Your task to perform on an android device: Go to calendar. Show me events next week Image 0: 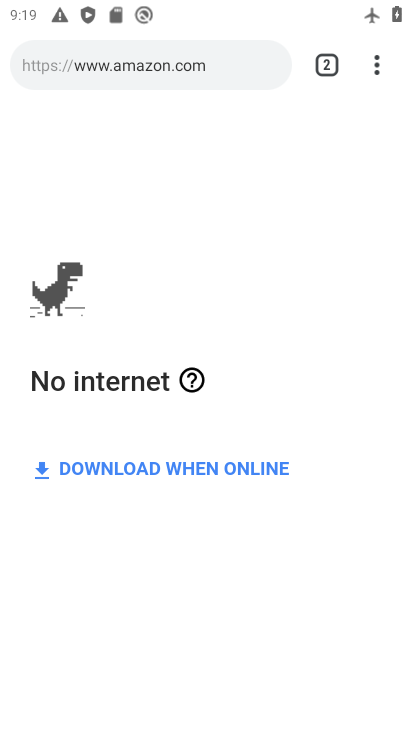
Step 0: press home button
Your task to perform on an android device: Go to calendar. Show me events next week Image 1: 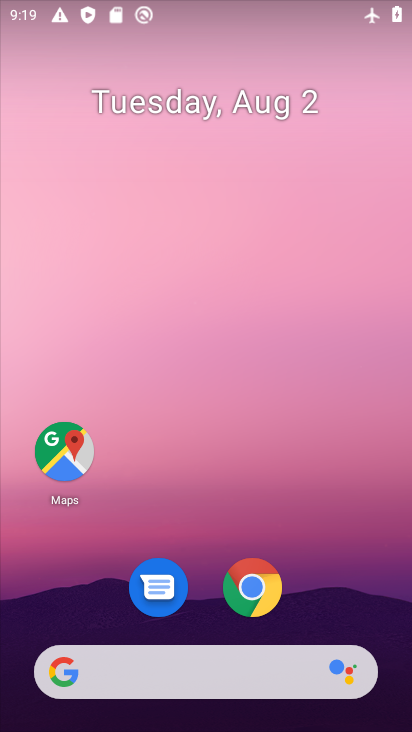
Step 1: drag from (397, 613) to (355, 146)
Your task to perform on an android device: Go to calendar. Show me events next week Image 2: 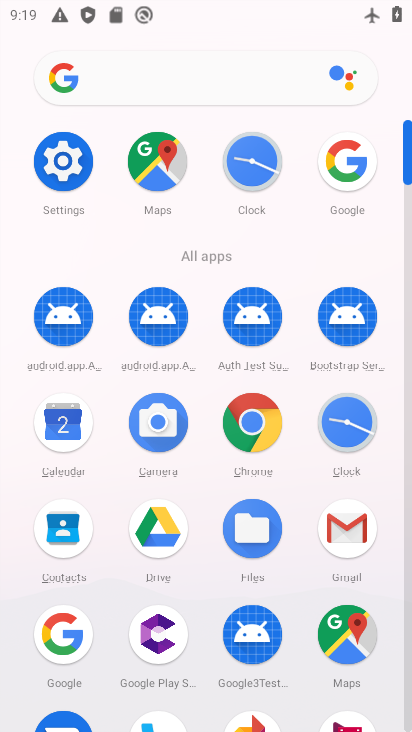
Step 2: click (66, 431)
Your task to perform on an android device: Go to calendar. Show me events next week Image 3: 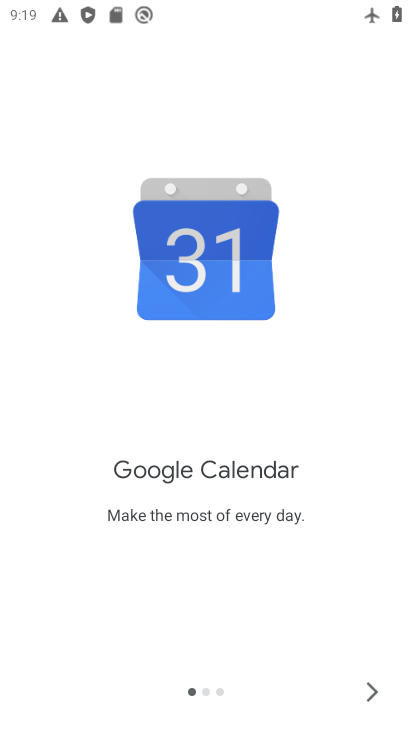
Step 3: click (369, 697)
Your task to perform on an android device: Go to calendar. Show me events next week Image 4: 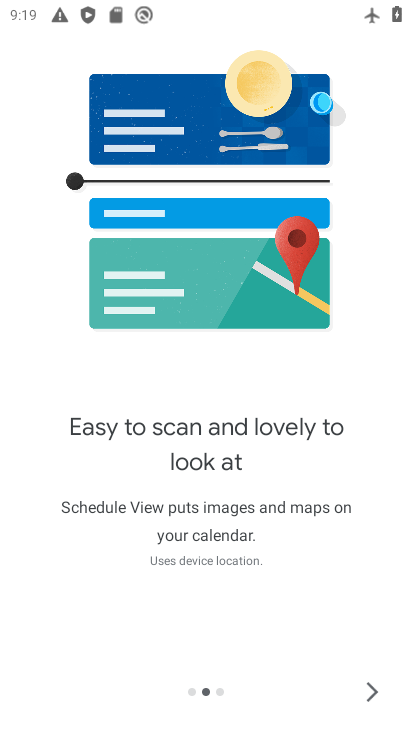
Step 4: click (369, 697)
Your task to perform on an android device: Go to calendar. Show me events next week Image 5: 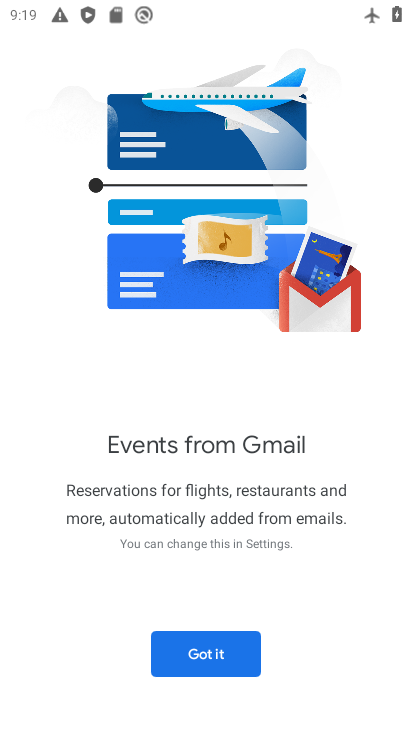
Step 5: click (245, 658)
Your task to perform on an android device: Go to calendar. Show me events next week Image 6: 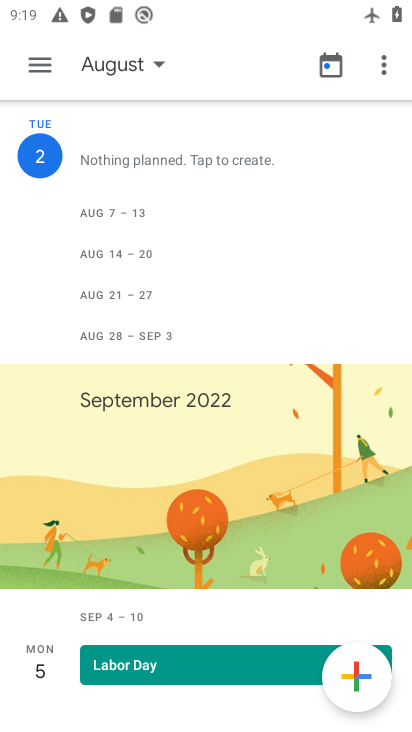
Step 6: click (52, 72)
Your task to perform on an android device: Go to calendar. Show me events next week Image 7: 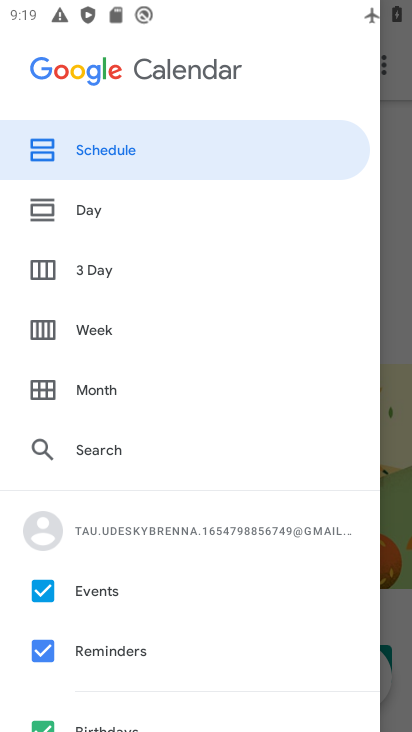
Step 7: drag from (191, 681) to (137, 283)
Your task to perform on an android device: Go to calendar. Show me events next week Image 8: 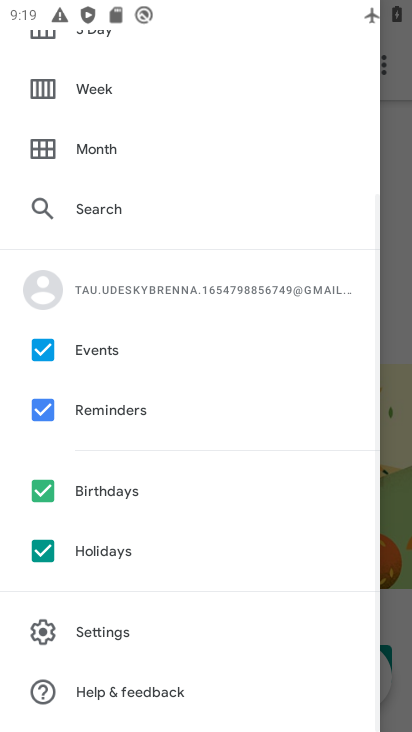
Step 8: click (40, 556)
Your task to perform on an android device: Go to calendar. Show me events next week Image 9: 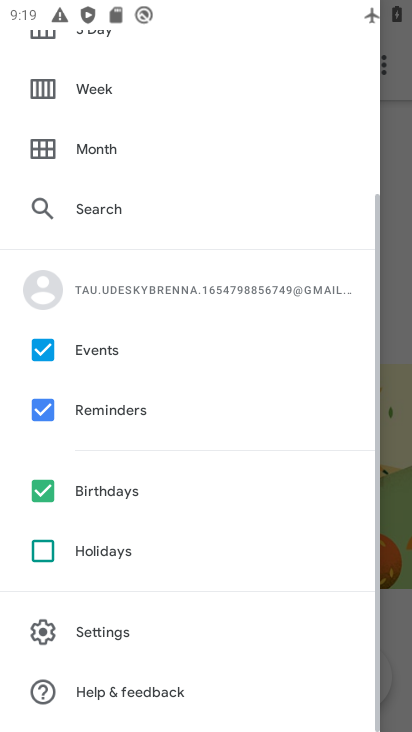
Step 9: click (36, 491)
Your task to perform on an android device: Go to calendar. Show me events next week Image 10: 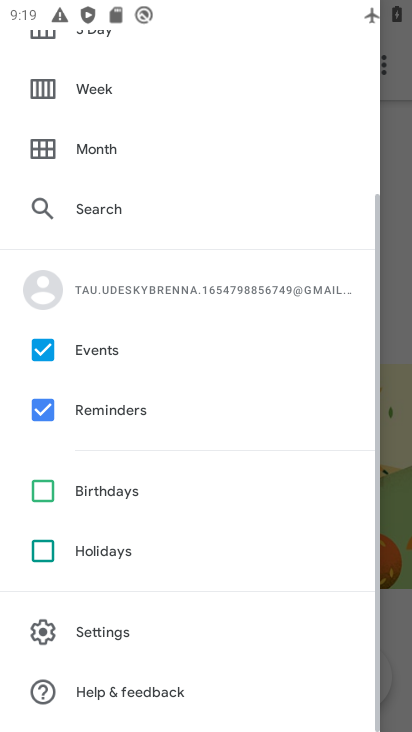
Step 10: click (36, 411)
Your task to perform on an android device: Go to calendar. Show me events next week Image 11: 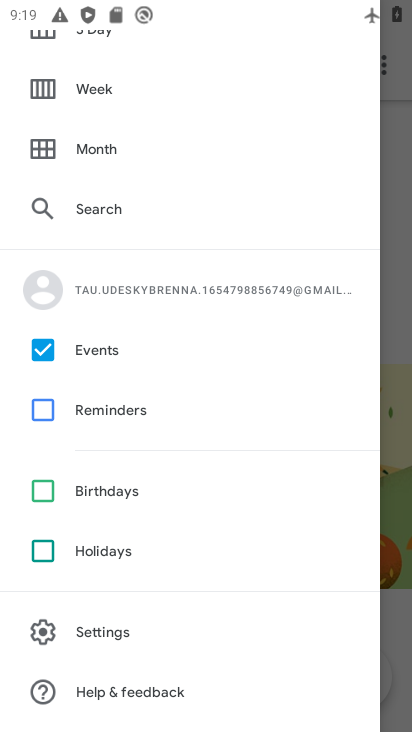
Step 11: click (71, 99)
Your task to perform on an android device: Go to calendar. Show me events next week Image 12: 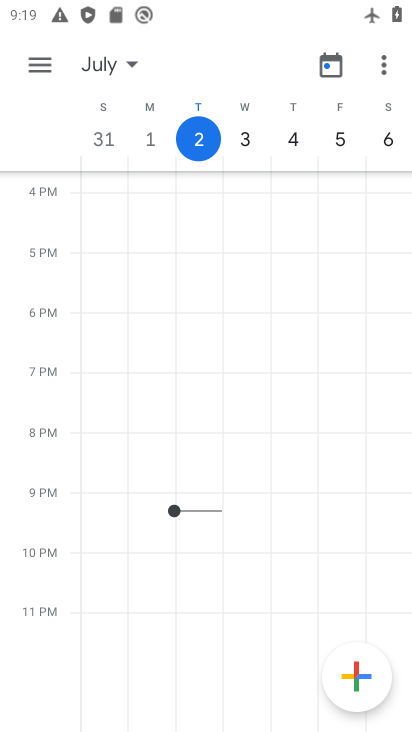
Step 12: click (136, 75)
Your task to perform on an android device: Go to calendar. Show me events next week Image 13: 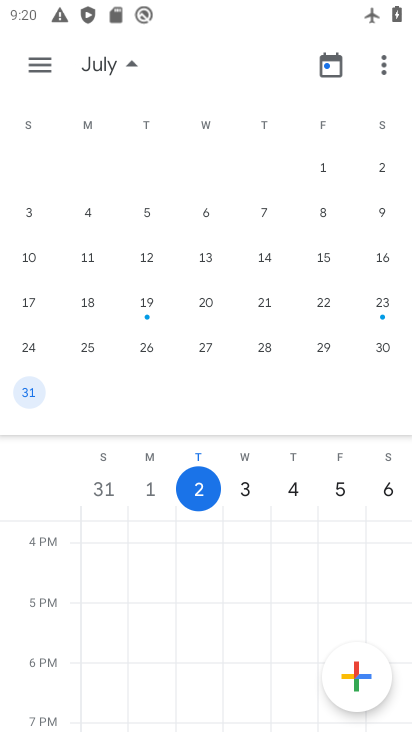
Step 13: drag from (369, 278) to (18, 274)
Your task to perform on an android device: Go to calendar. Show me events next week Image 14: 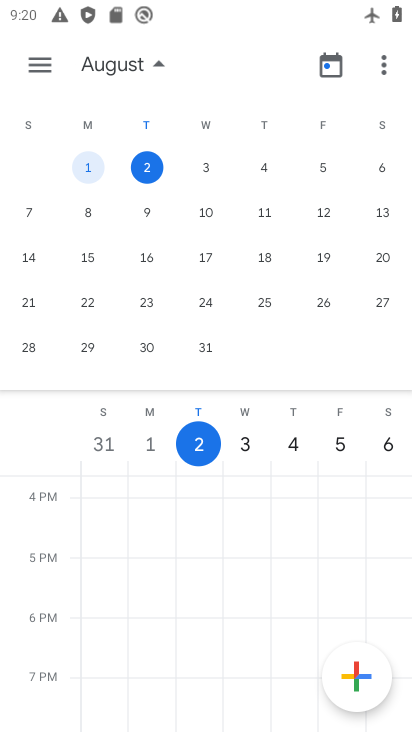
Step 14: click (205, 224)
Your task to perform on an android device: Go to calendar. Show me events next week Image 15: 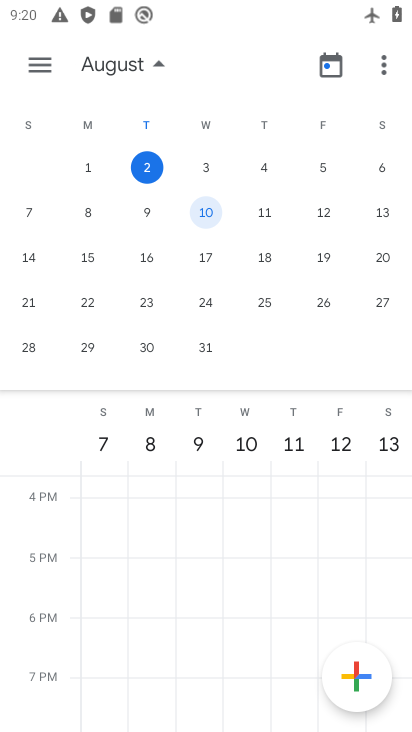
Step 15: click (151, 62)
Your task to perform on an android device: Go to calendar. Show me events next week Image 16: 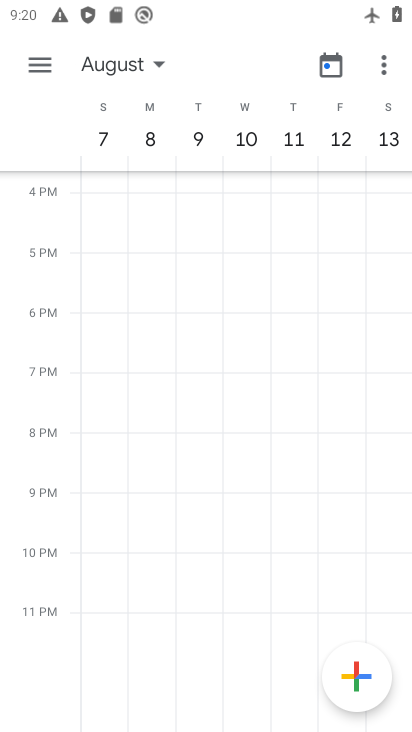
Step 16: task complete